Your task to perform on an android device: toggle sleep mode Image 0: 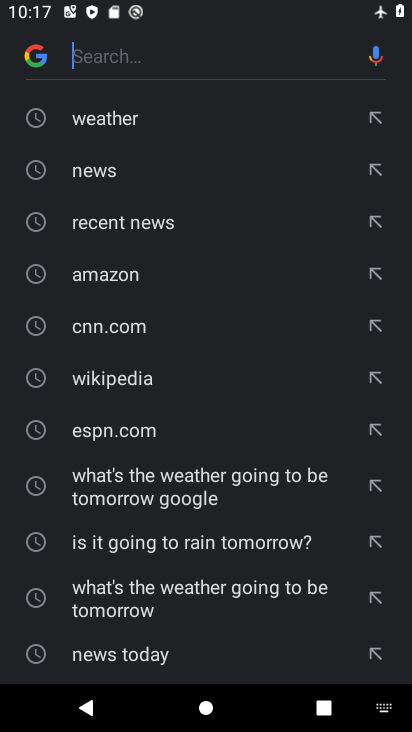
Step 0: press home button
Your task to perform on an android device: toggle sleep mode Image 1: 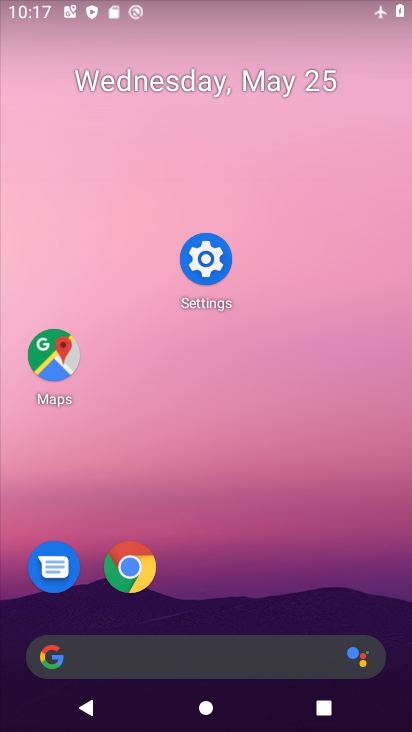
Step 1: drag from (263, 539) to (328, 23)
Your task to perform on an android device: toggle sleep mode Image 2: 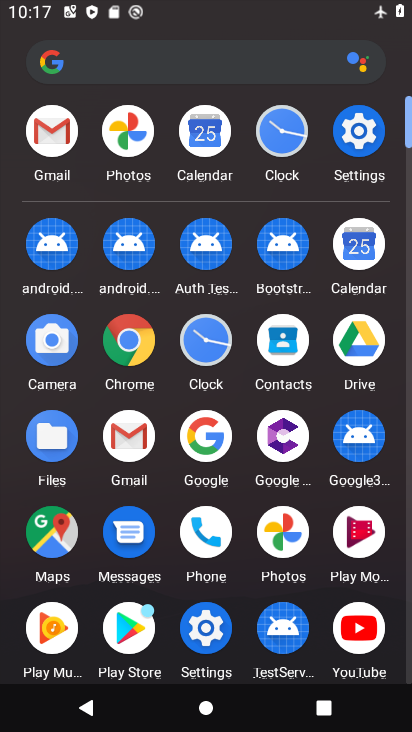
Step 2: click (343, 171)
Your task to perform on an android device: toggle sleep mode Image 3: 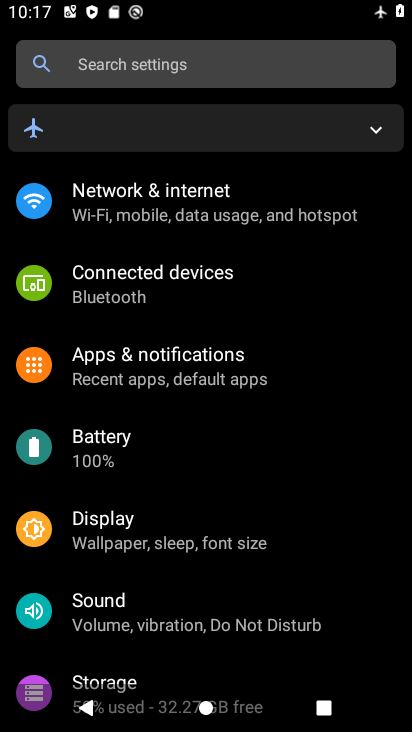
Step 3: click (234, 547)
Your task to perform on an android device: toggle sleep mode Image 4: 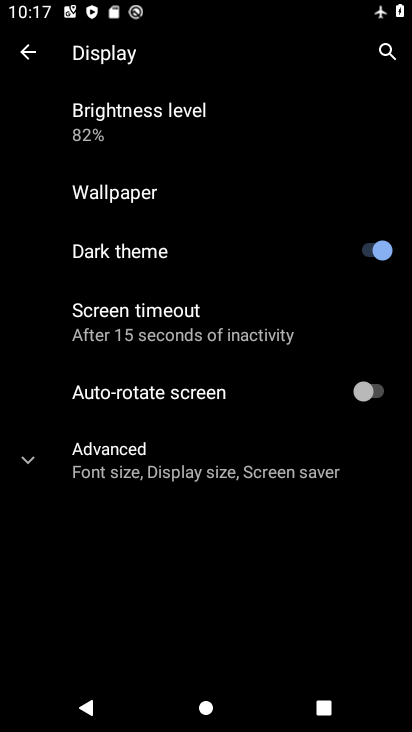
Step 4: click (196, 321)
Your task to perform on an android device: toggle sleep mode Image 5: 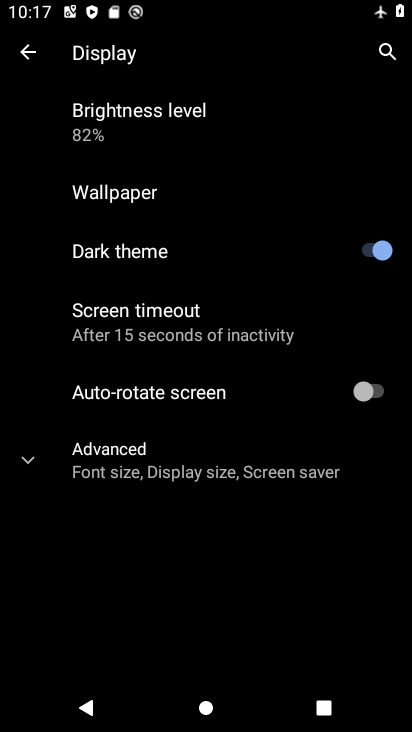
Step 5: click (196, 321)
Your task to perform on an android device: toggle sleep mode Image 6: 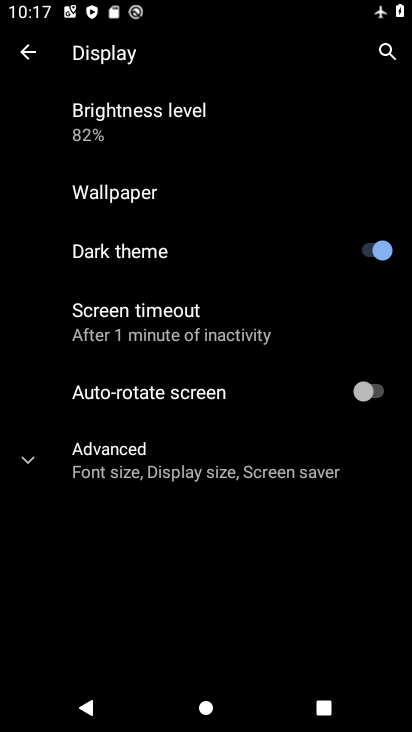
Step 6: task complete